Your task to perform on an android device: Open Google Chrome and open the bookmarks view Image 0: 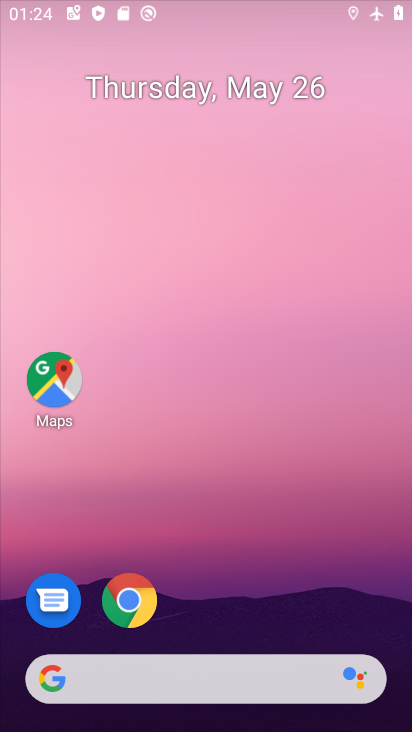
Step 0: drag from (371, 461) to (308, 3)
Your task to perform on an android device: Open Google Chrome and open the bookmarks view Image 1: 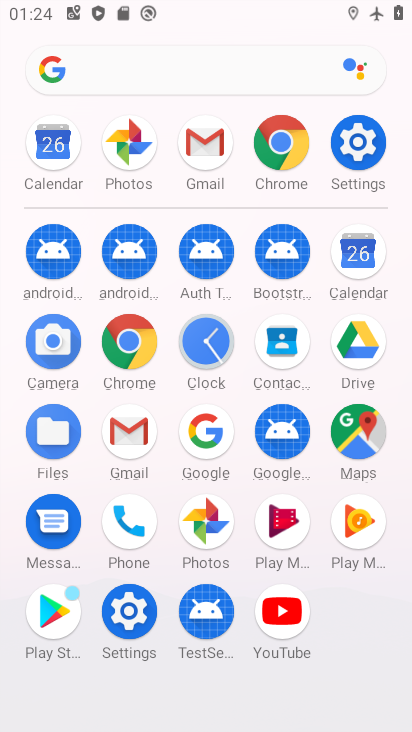
Step 1: click (259, 149)
Your task to perform on an android device: Open Google Chrome and open the bookmarks view Image 2: 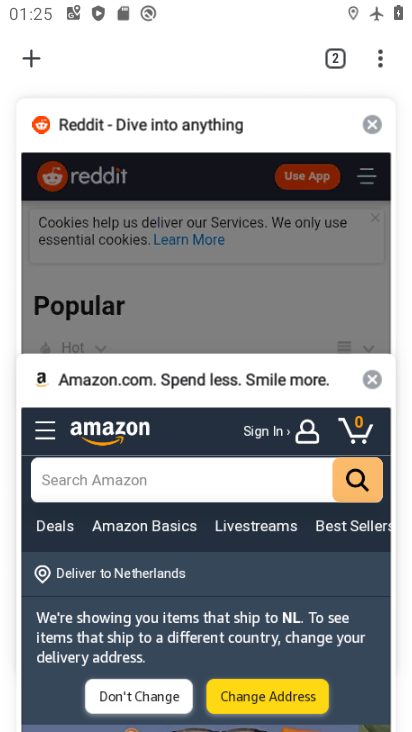
Step 2: click (389, 55)
Your task to perform on an android device: Open Google Chrome and open the bookmarks view Image 3: 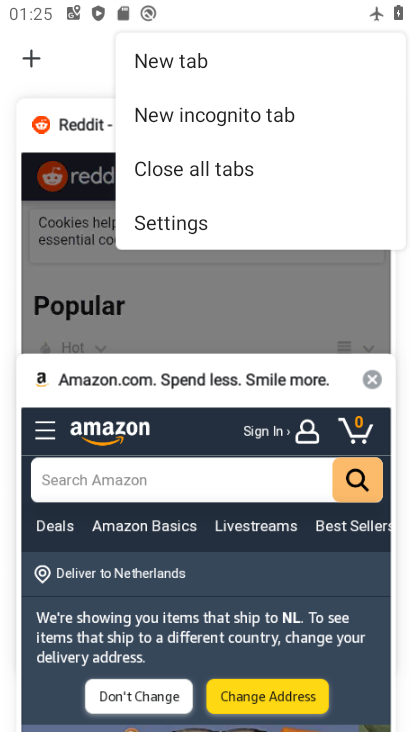
Step 3: click (272, 214)
Your task to perform on an android device: Open Google Chrome and open the bookmarks view Image 4: 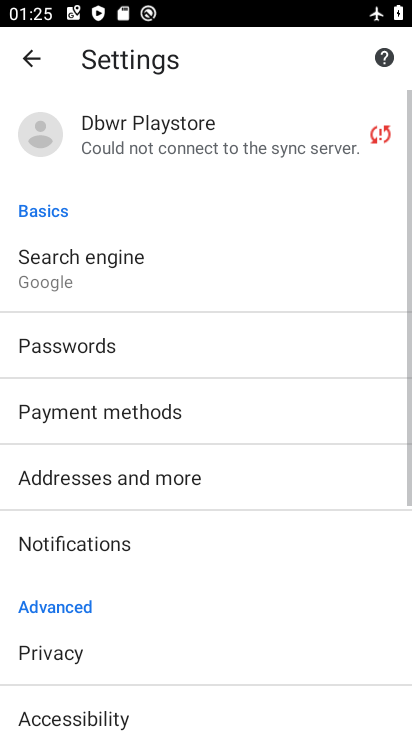
Step 4: drag from (326, 556) to (258, 10)
Your task to perform on an android device: Open Google Chrome and open the bookmarks view Image 5: 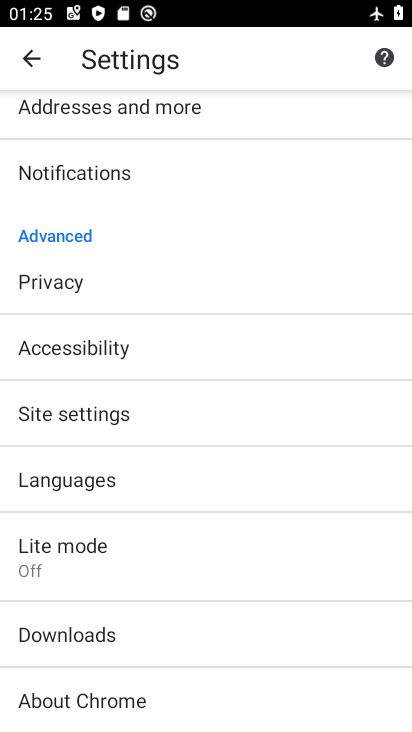
Step 5: drag from (291, 545) to (238, 60)
Your task to perform on an android device: Open Google Chrome and open the bookmarks view Image 6: 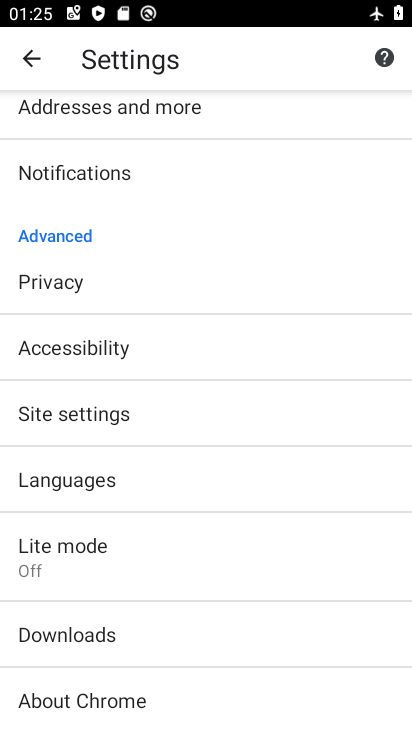
Step 6: press back button
Your task to perform on an android device: Open Google Chrome and open the bookmarks view Image 7: 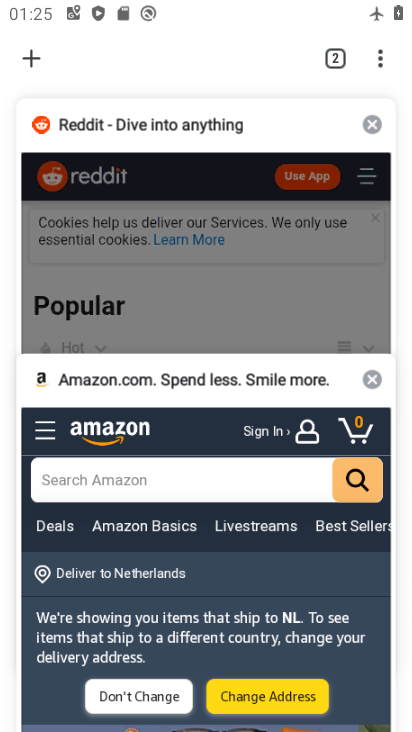
Step 7: click (38, 60)
Your task to perform on an android device: Open Google Chrome and open the bookmarks view Image 8: 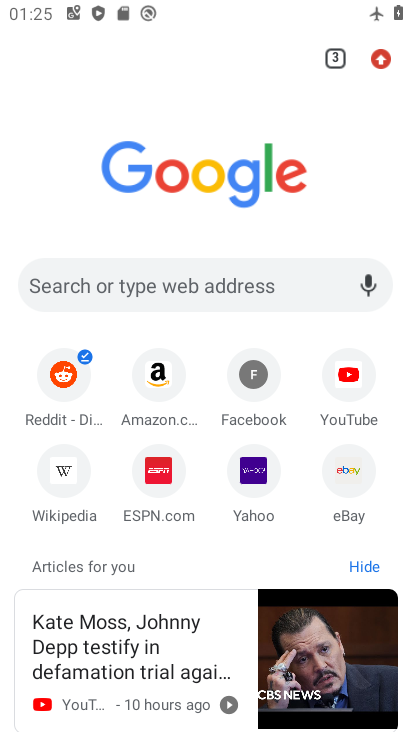
Step 8: click (373, 47)
Your task to perform on an android device: Open Google Chrome and open the bookmarks view Image 9: 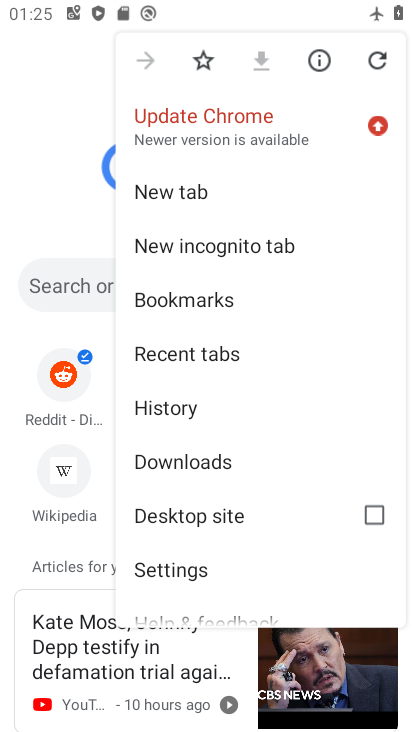
Step 9: click (150, 284)
Your task to perform on an android device: Open Google Chrome and open the bookmarks view Image 10: 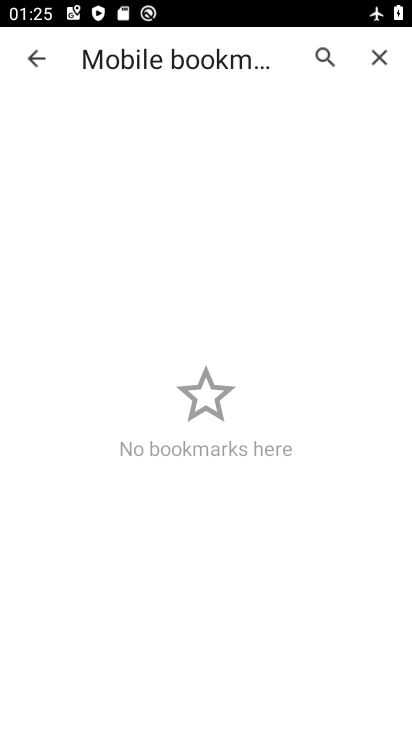
Step 10: task complete